Your task to perform on an android device: Open internet settings Image 0: 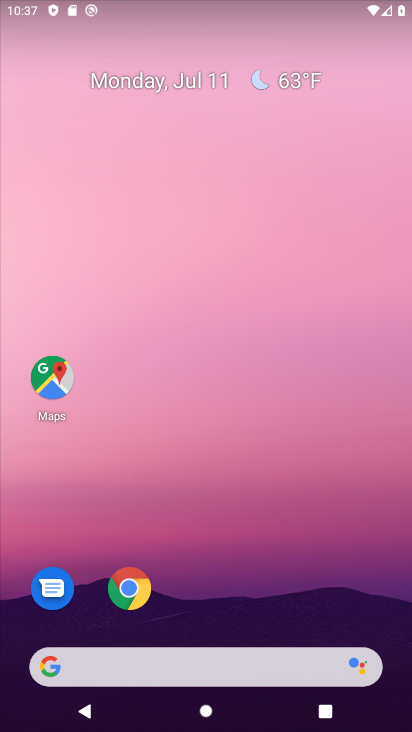
Step 0: drag from (239, 727) to (239, 92)
Your task to perform on an android device: Open internet settings Image 1: 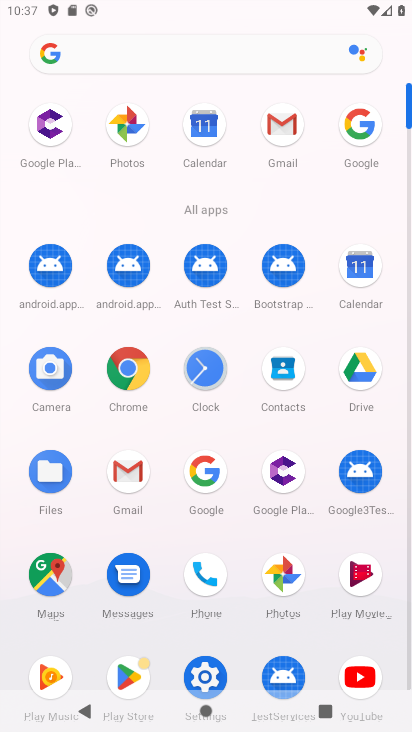
Step 1: click (195, 673)
Your task to perform on an android device: Open internet settings Image 2: 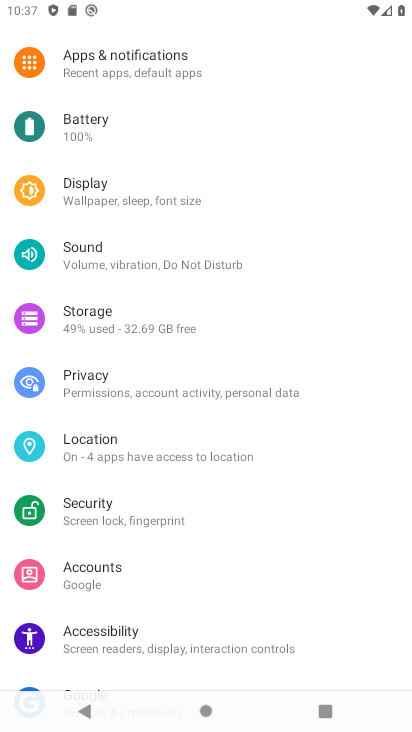
Step 2: task complete